Your task to perform on an android device: Open the Play Movies app and select the watchlist tab. Image 0: 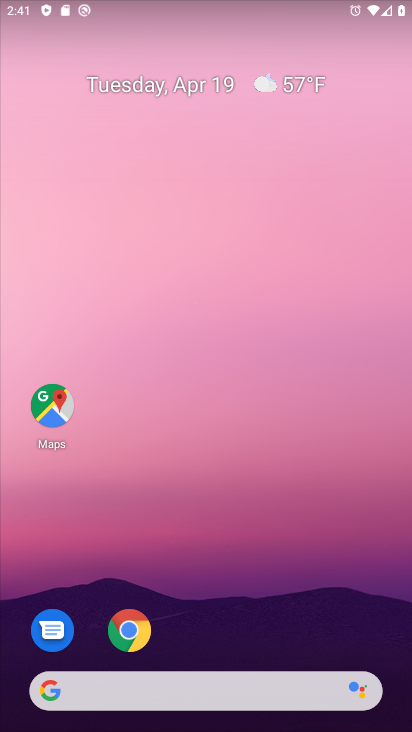
Step 0: drag from (235, 614) to (282, 0)
Your task to perform on an android device: Open the Play Movies app and select the watchlist tab. Image 1: 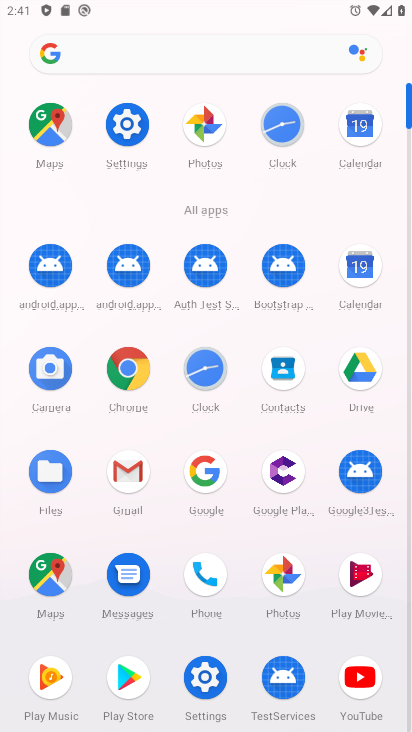
Step 1: click (360, 581)
Your task to perform on an android device: Open the Play Movies app and select the watchlist tab. Image 2: 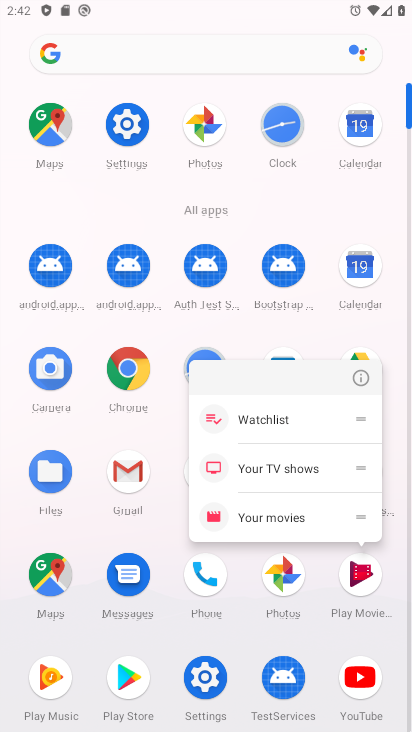
Step 2: click (353, 580)
Your task to perform on an android device: Open the Play Movies app and select the watchlist tab. Image 3: 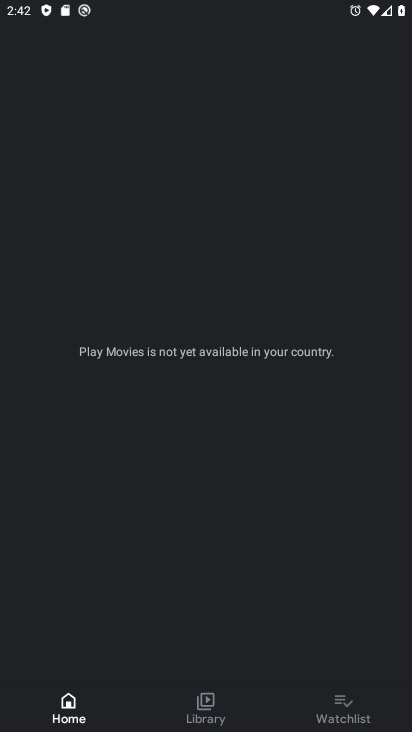
Step 3: click (340, 703)
Your task to perform on an android device: Open the Play Movies app and select the watchlist tab. Image 4: 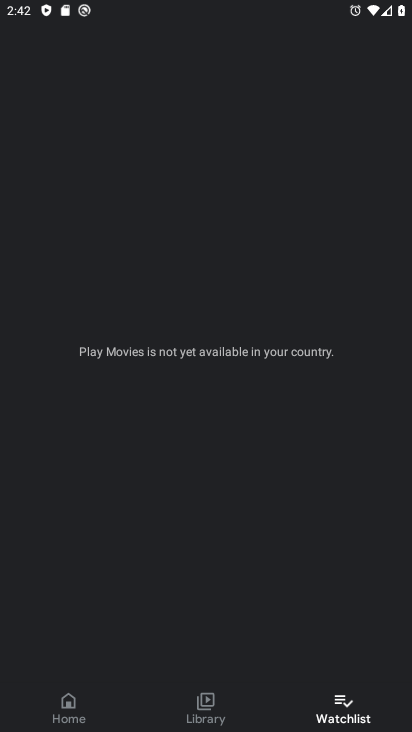
Step 4: task complete